Your task to perform on an android device: Turn off the flashlight Image 0: 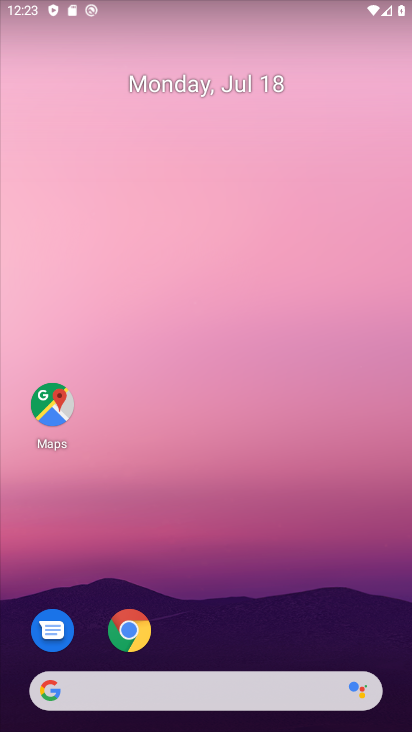
Step 0: drag from (287, 713) to (154, 38)
Your task to perform on an android device: Turn off the flashlight Image 1: 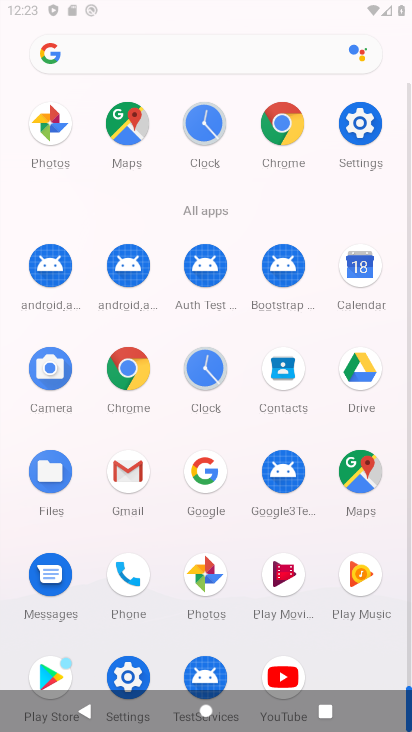
Step 1: drag from (187, 586) to (151, 39)
Your task to perform on an android device: Turn off the flashlight Image 2: 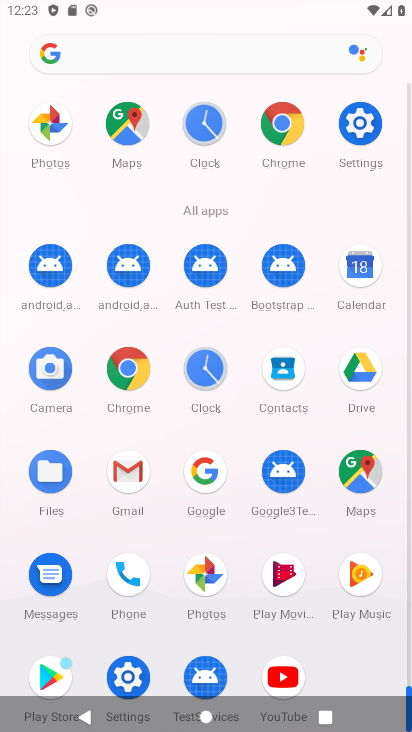
Step 2: click (156, 116)
Your task to perform on an android device: Turn off the flashlight Image 3: 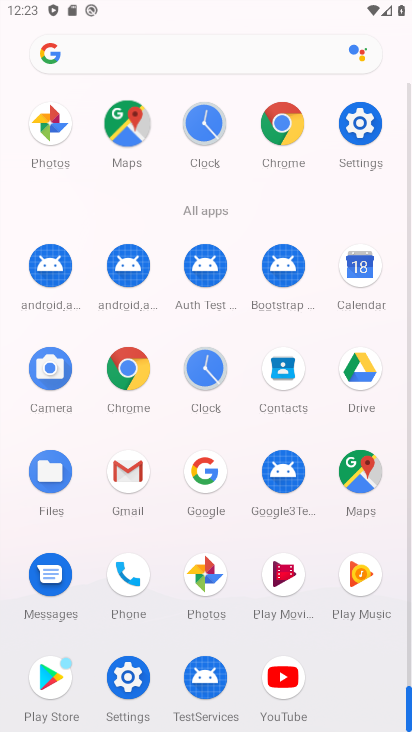
Step 3: task complete